Your task to perform on an android device: Go to location settings Image 0: 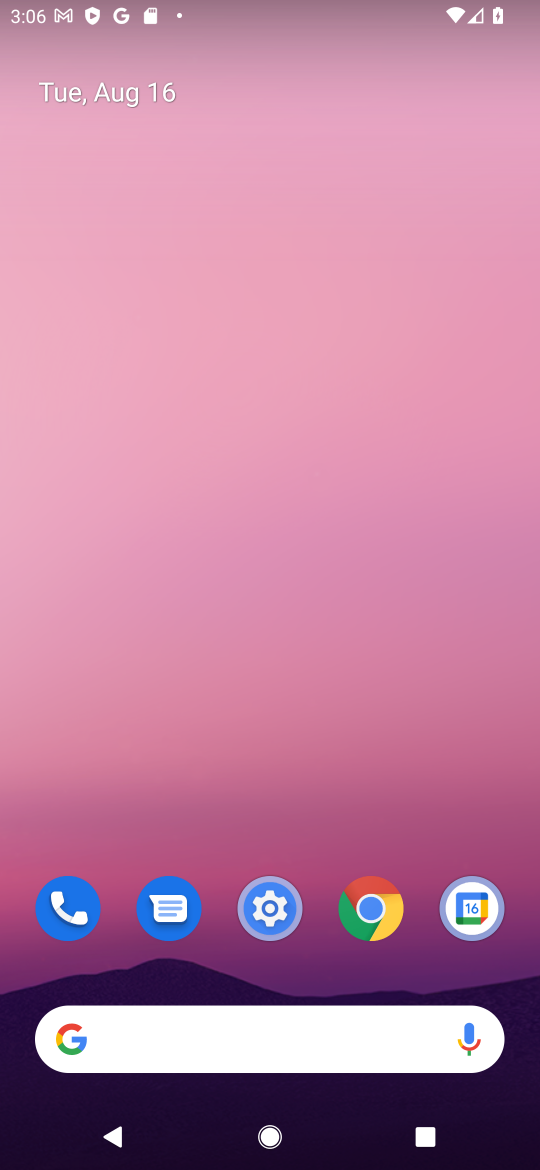
Step 0: drag from (232, 859) to (313, 95)
Your task to perform on an android device: Go to location settings Image 1: 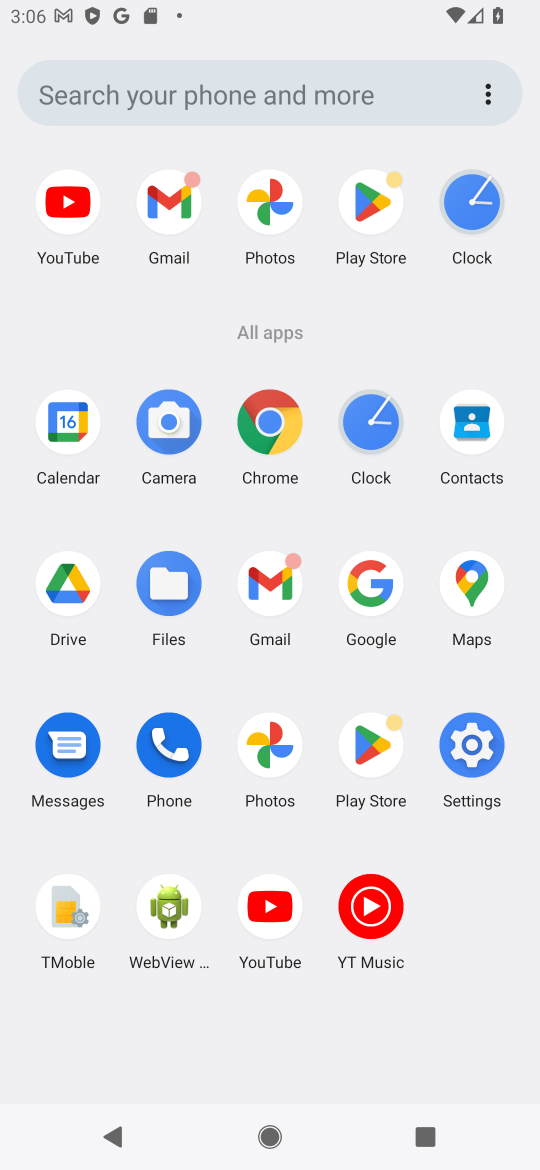
Step 1: click (453, 761)
Your task to perform on an android device: Go to location settings Image 2: 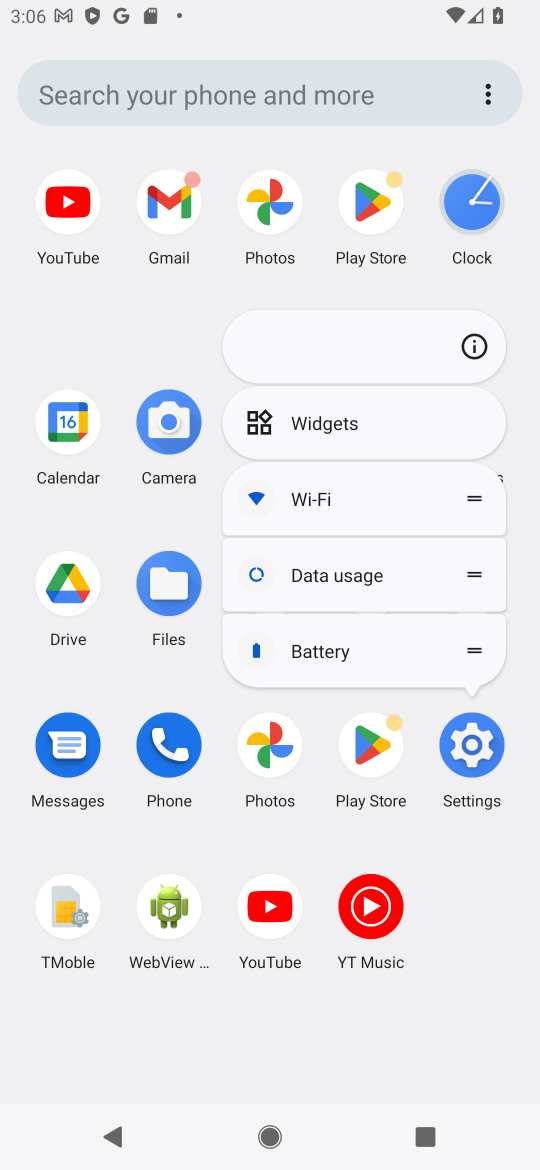
Step 2: click (471, 759)
Your task to perform on an android device: Go to location settings Image 3: 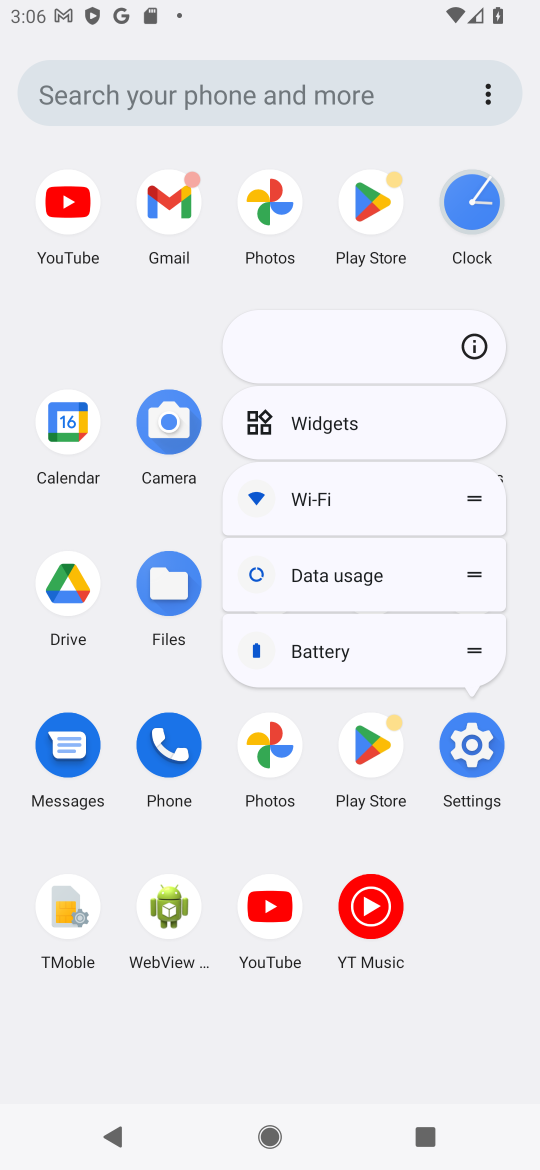
Step 3: click (471, 759)
Your task to perform on an android device: Go to location settings Image 4: 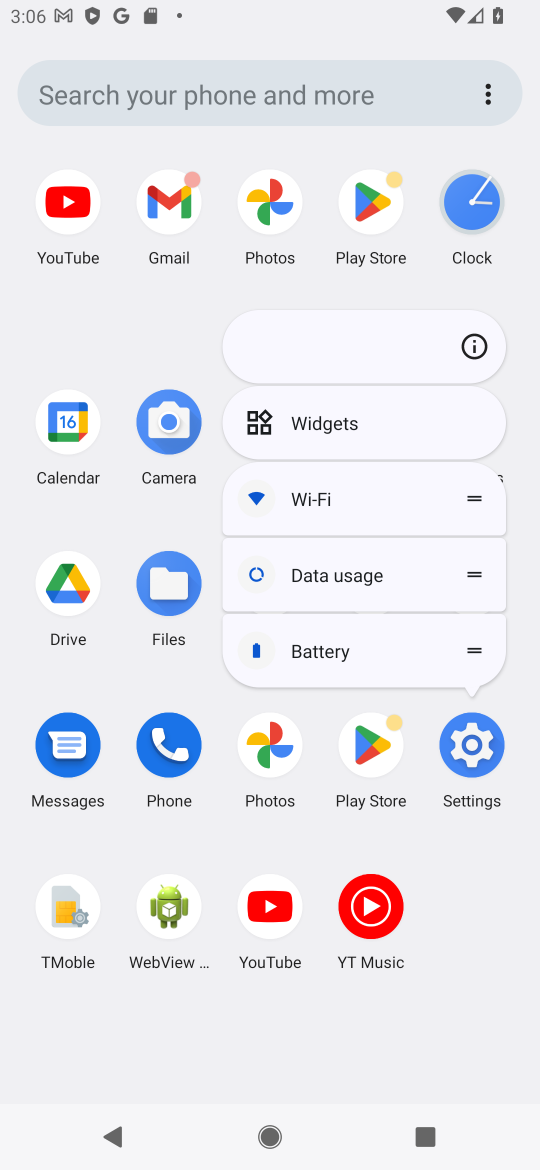
Step 4: click (473, 750)
Your task to perform on an android device: Go to location settings Image 5: 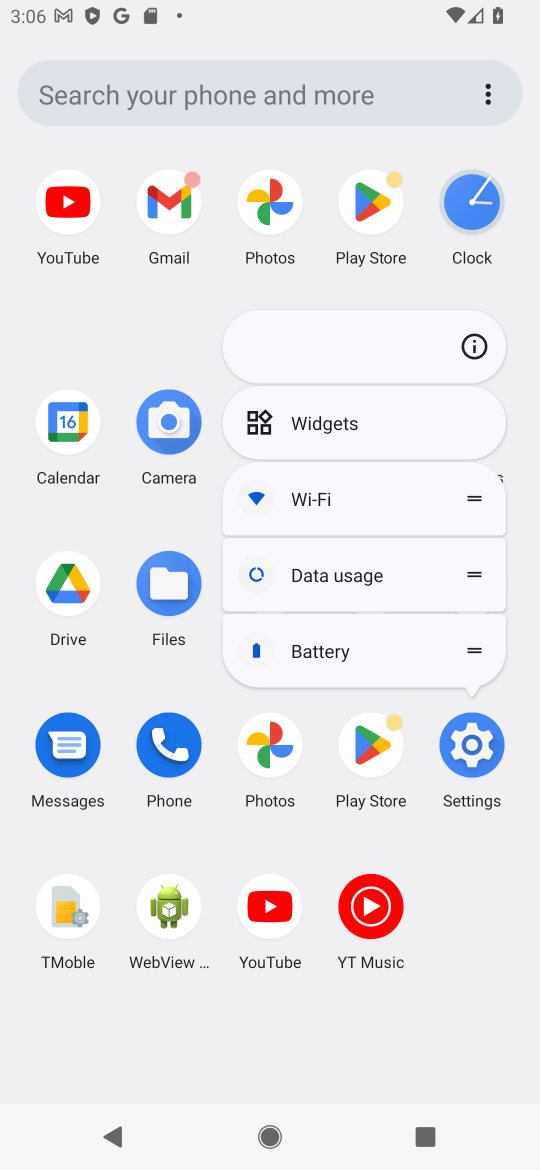
Step 5: click (475, 750)
Your task to perform on an android device: Go to location settings Image 6: 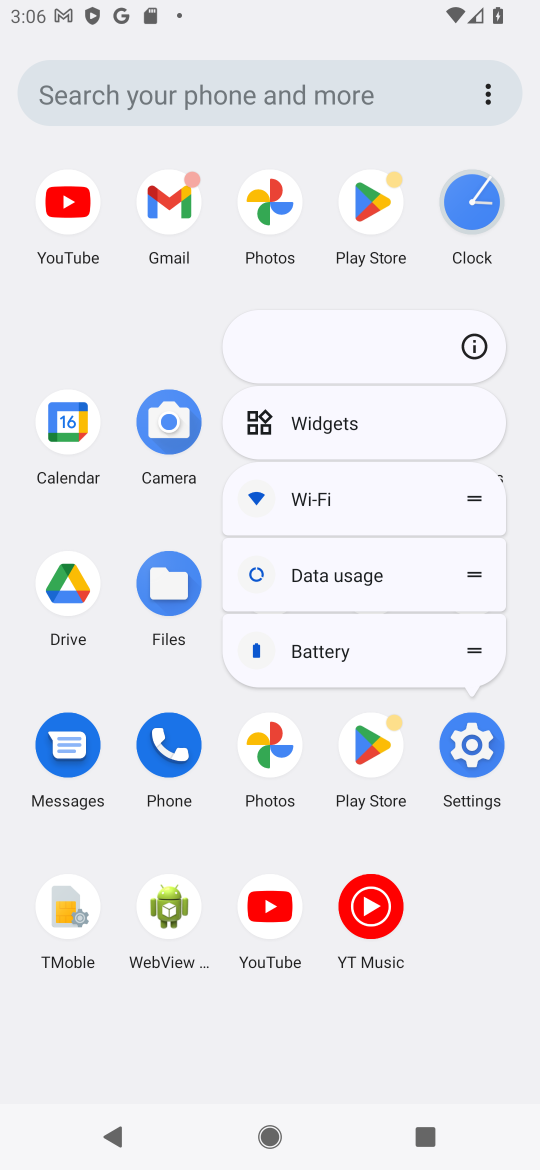
Step 6: click (470, 755)
Your task to perform on an android device: Go to location settings Image 7: 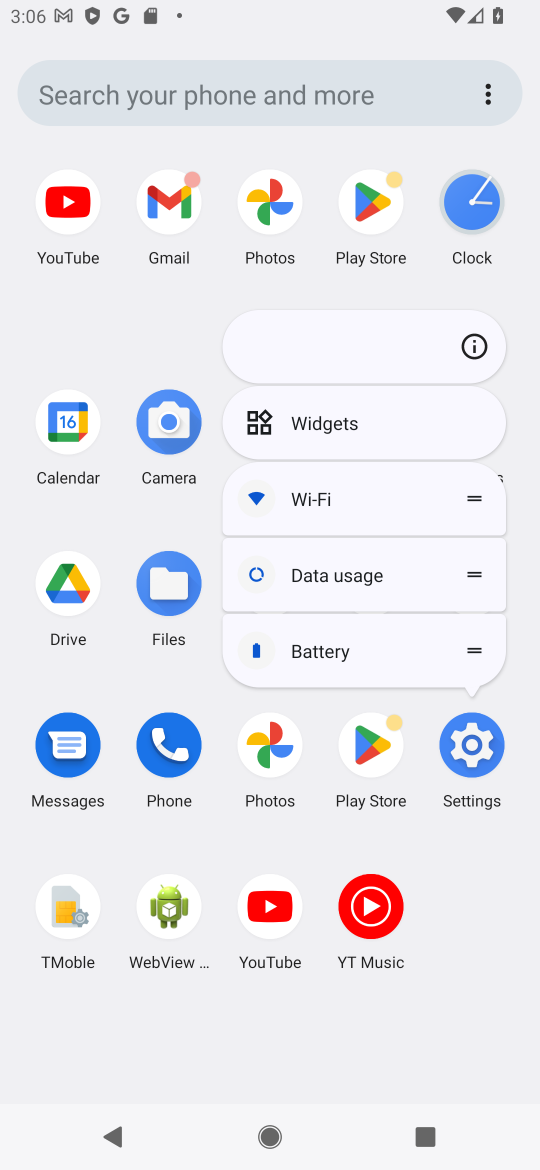
Step 7: click (469, 756)
Your task to perform on an android device: Go to location settings Image 8: 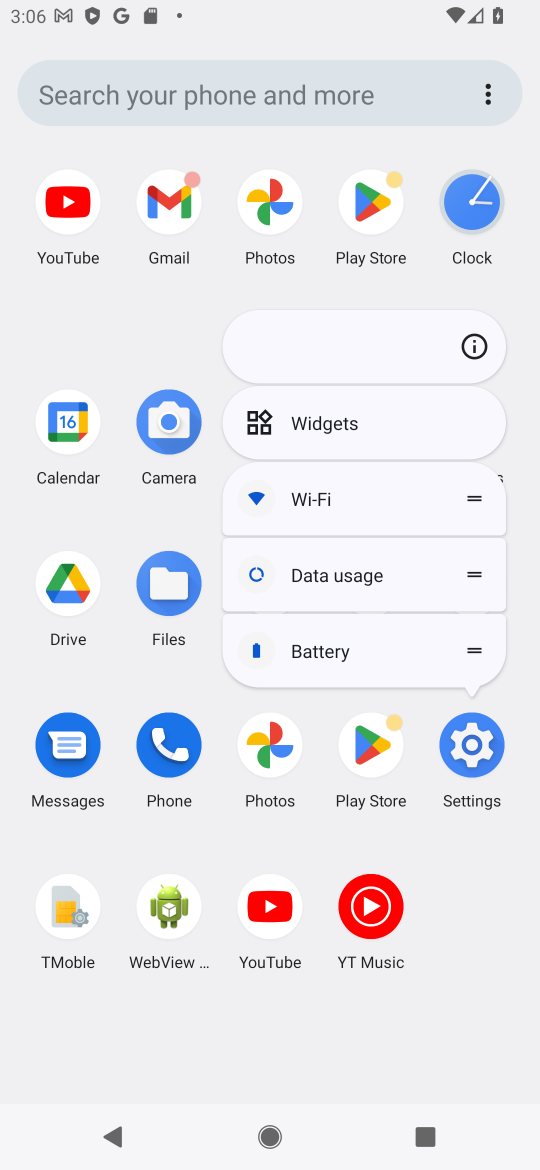
Step 8: click (484, 742)
Your task to perform on an android device: Go to location settings Image 9: 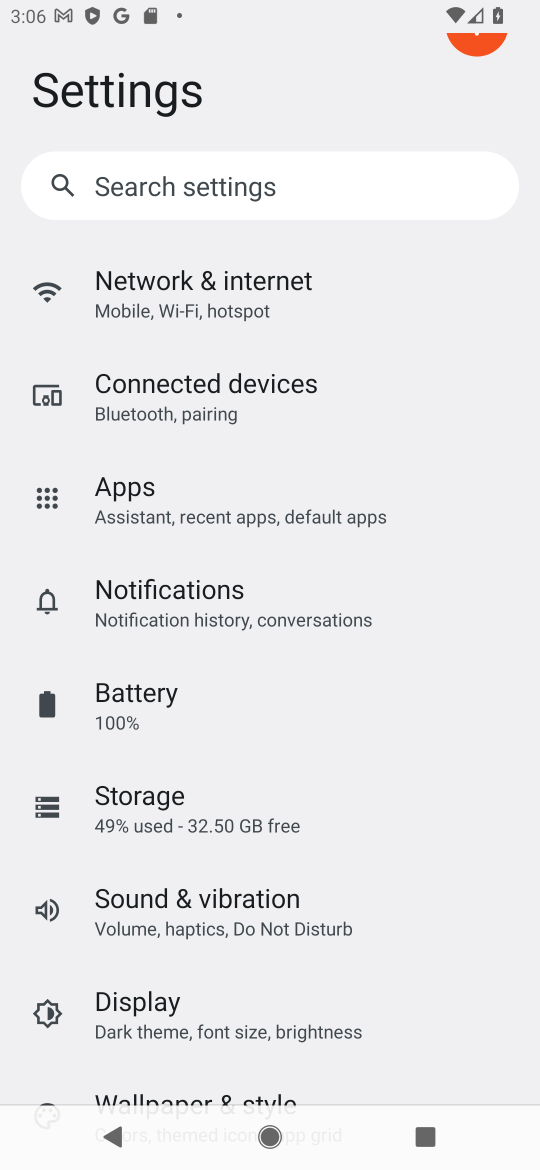
Step 9: drag from (220, 1005) to (391, 438)
Your task to perform on an android device: Go to location settings Image 10: 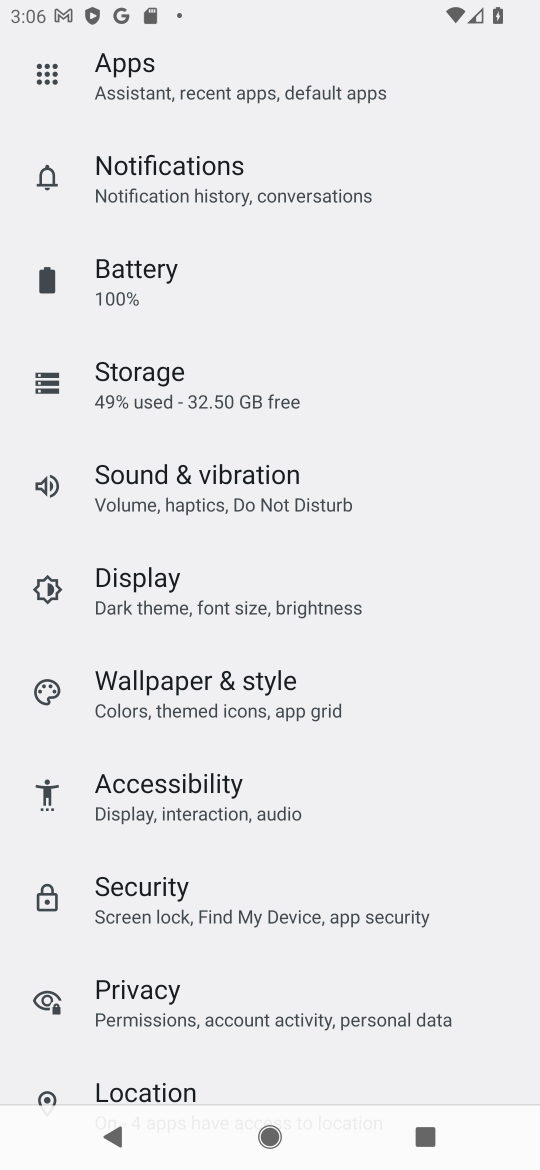
Step 10: click (151, 1089)
Your task to perform on an android device: Go to location settings Image 11: 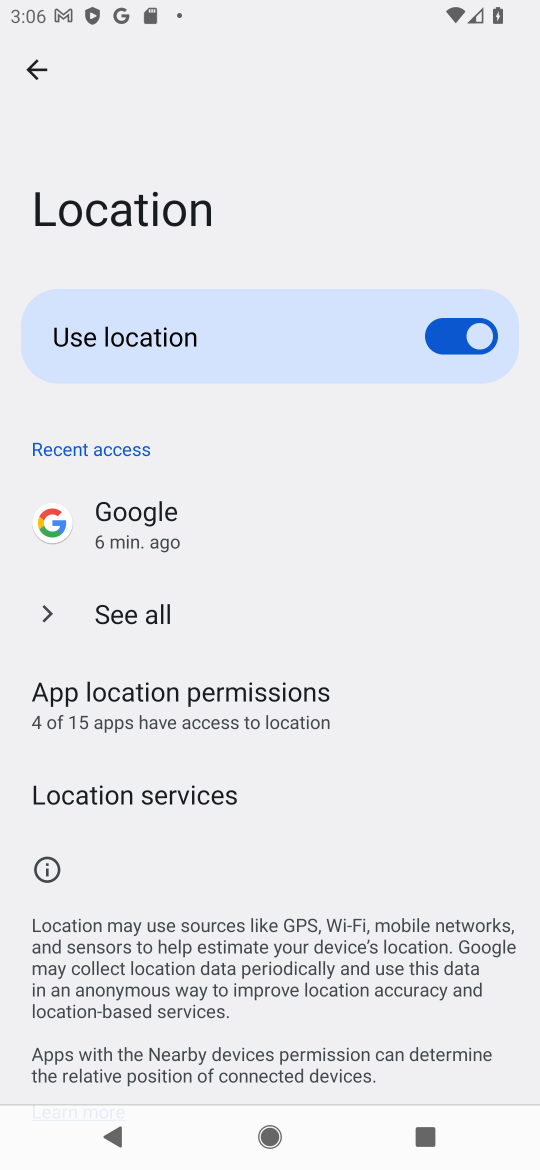
Step 11: task complete